Your task to perform on an android device: Show me popular videos on Youtube Image 0: 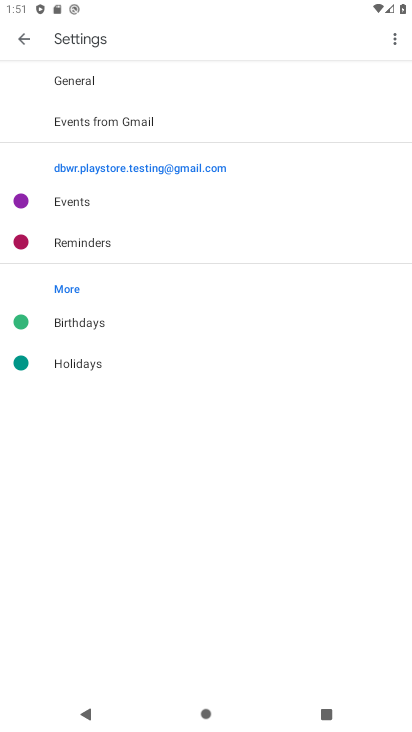
Step 0: press home button
Your task to perform on an android device: Show me popular videos on Youtube Image 1: 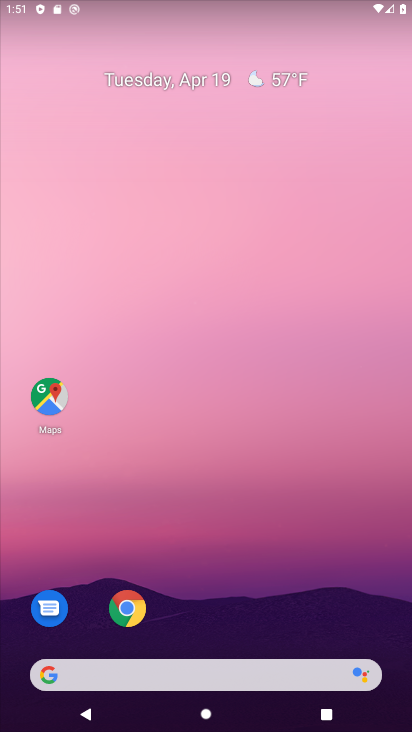
Step 1: drag from (194, 597) to (221, 213)
Your task to perform on an android device: Show me popular videos on Youtube Image 2: 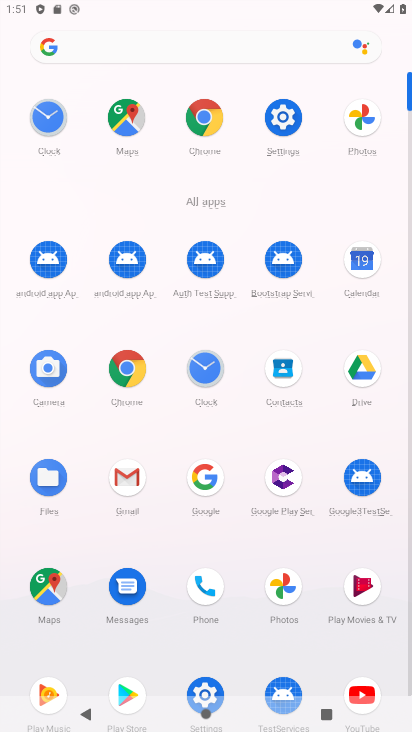
Step 2: drag from (221, 630) to (240, 370)
Your task to perform on an android device: Show me popular videos on Youtube Image 3: 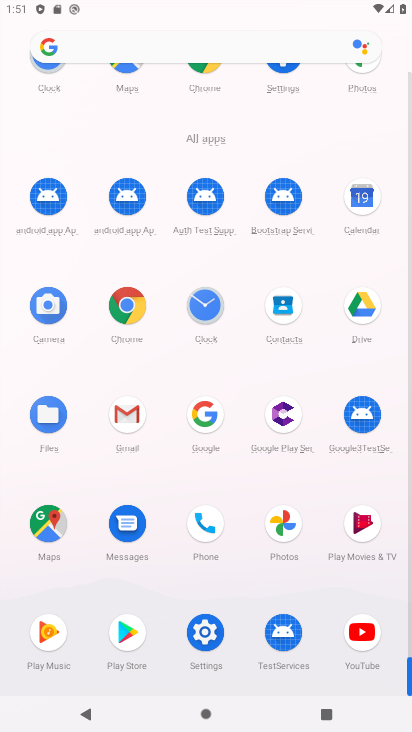
Step 3: click (372, 617)
Your task to perform on an android device: Show me popular videos on Youtube Image 4: 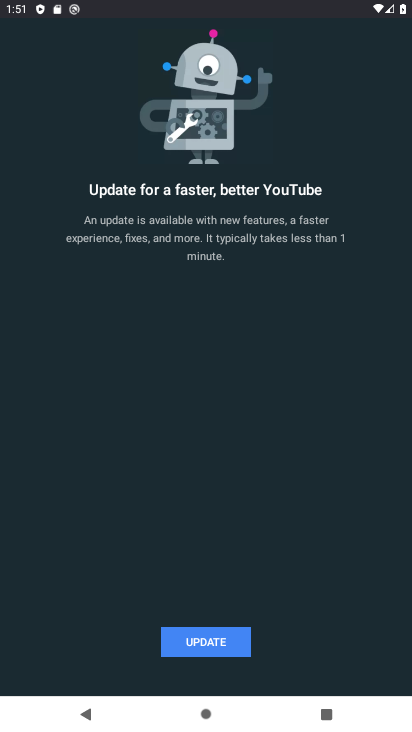
Step 4: click (204, 645)
Your task to perform on an android device: Show me popular videos on Youtube Image 5: 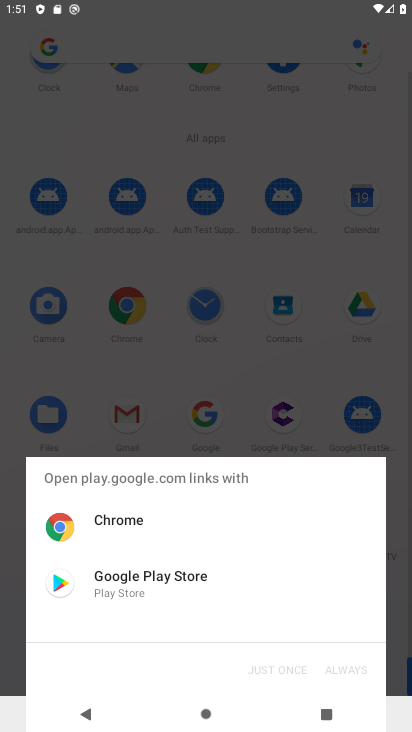
Step 5: click (172, 576)
Your task to perform on an android device: Show me popular videos on Youtube Image 6: 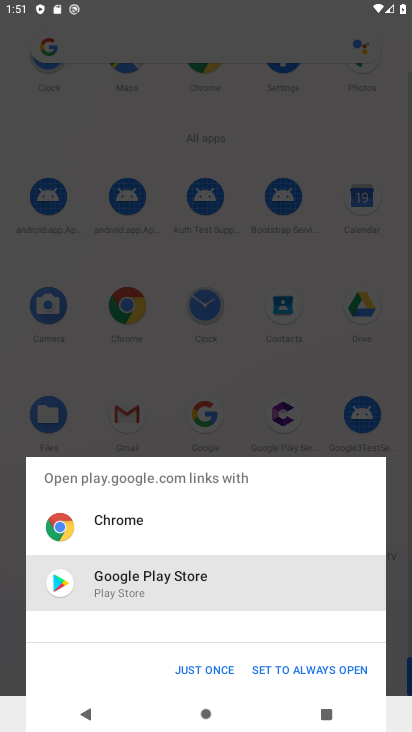
Step 6: click (182, 578)
Your task to perform on an android device: Show me popular videos on Youtube Image 7: 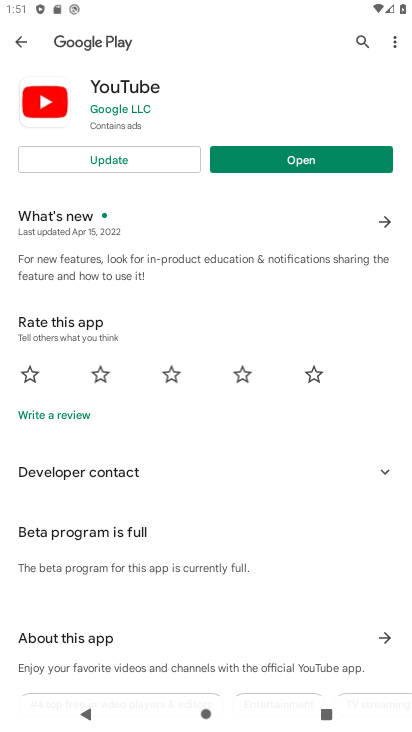
Step 7: click (169, 153)
Your task to perform on an android device: Show me popular videos on Youtube Image 8: 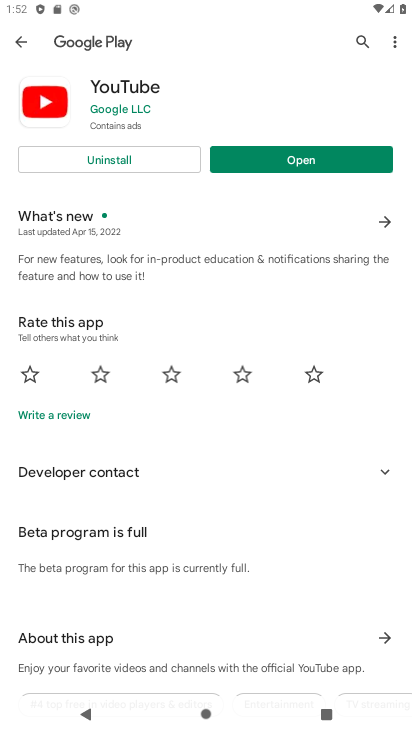
Step 8: click (274, 153)
Your task to perform on an android device: Show me popular videos on Youtube Image 9: 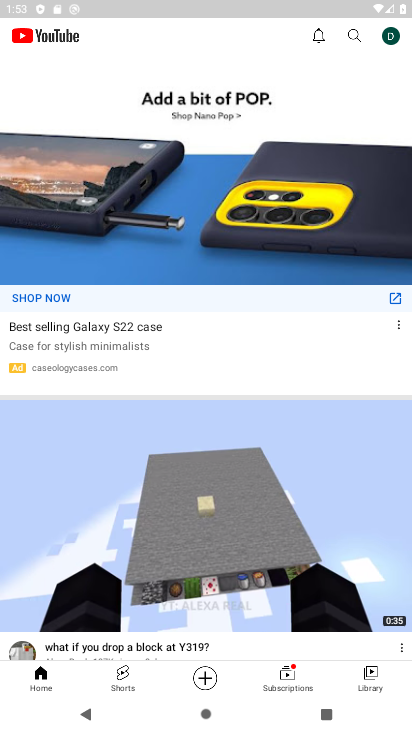
Step 9: task complete